Your task to perform on an android device: delete browsing data in the chrome app Image 0: 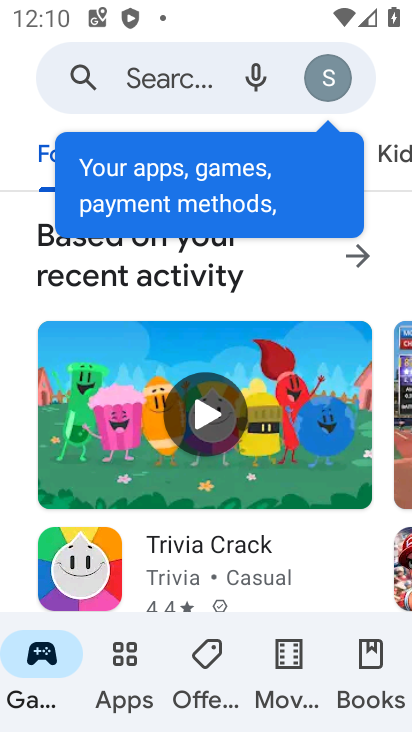
Step 0: press back button
Your task to perform on an android device: delete browsing data in the chrome app Image 1: 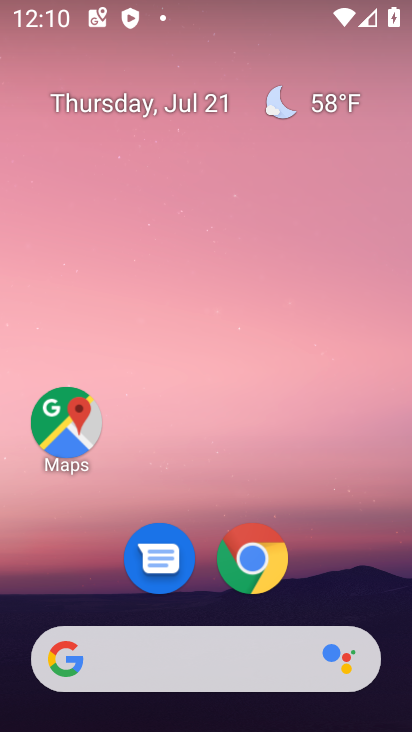
Step 1: click (256, 578)
Your task to perform on an android device: delete browsing data in the chrome app Image 2: 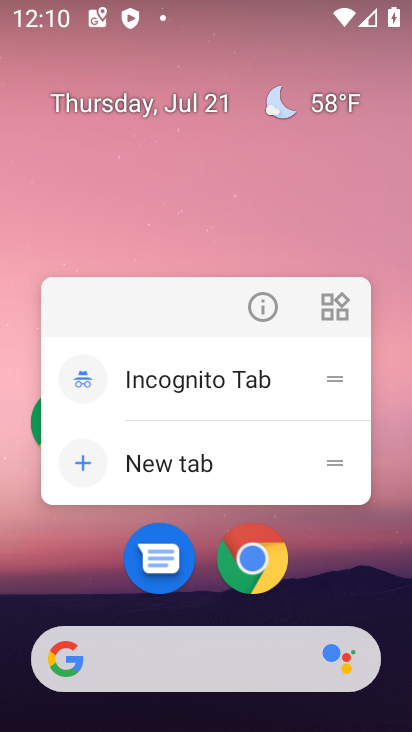
Step 2: click (247, 559)
Your task to perform on an android device: delete browsing data in the chrome app Image 3: 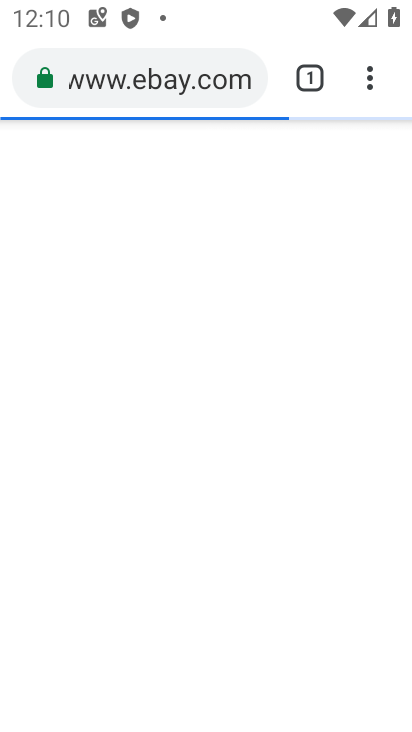
Step 3: drag from (371, 75) to (120, 439)
Your task to perform on an android device: delete browsing data in the chrome app Image 4: 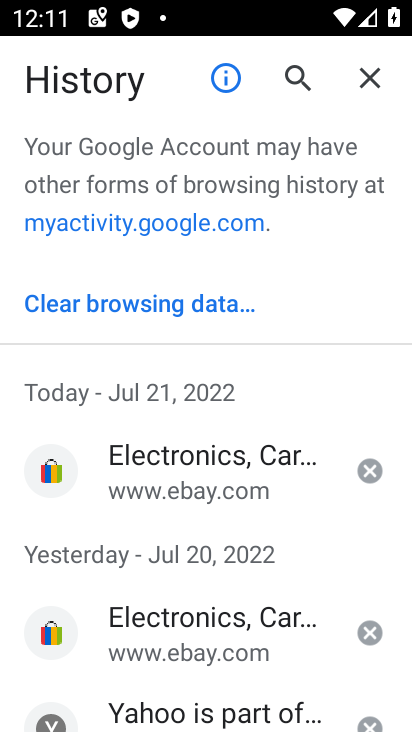
Step 4: click (89, 304)
Your task to perform on an android device: delete browsing data in the chrome app Image 5: 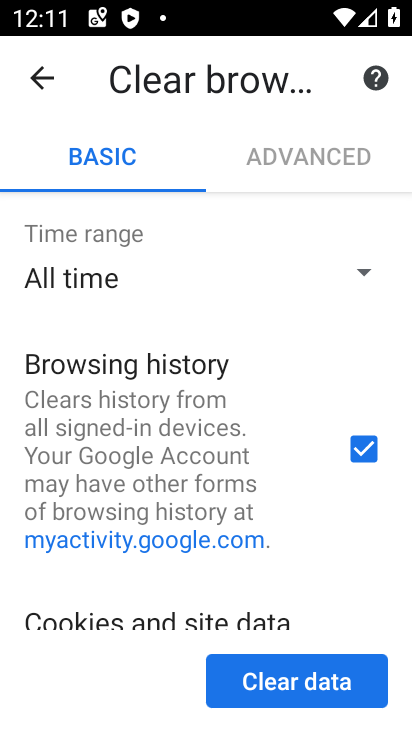
Step 5: drag from (177, 599) to (266, 258)
Your task to perform on an android device: delete browsing data in the chrome app Image 6: 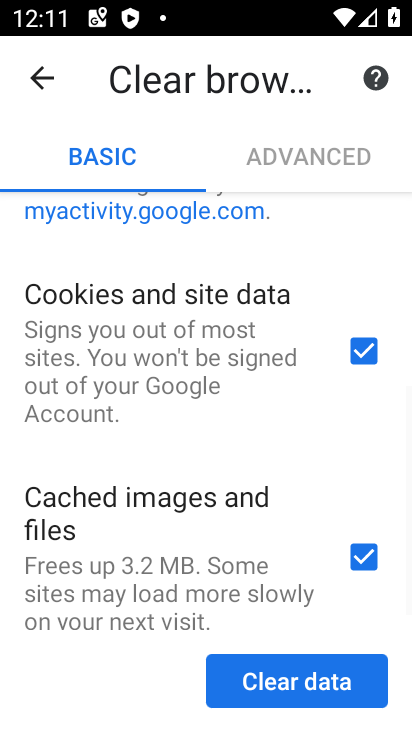
Step 6: click (290, 686)
Your task to perform on an android device: delete browsing data in the chrome app Image 7: 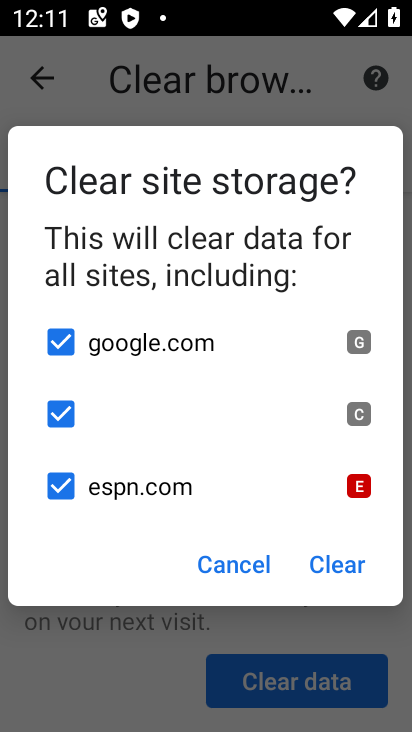
Step 7: click (319, 564)
Your task to perform on an android device: delete browsing data in the chrome app Image 8: 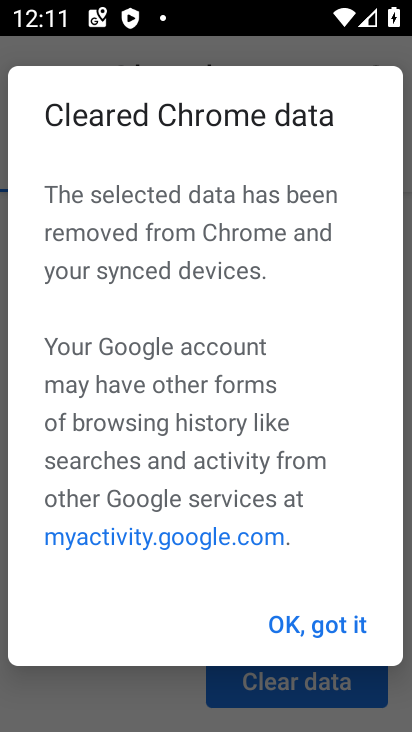
Step 8: click (312, 626)
Your task to perform on an android device: delete browsing data in the chrome app Image 9: 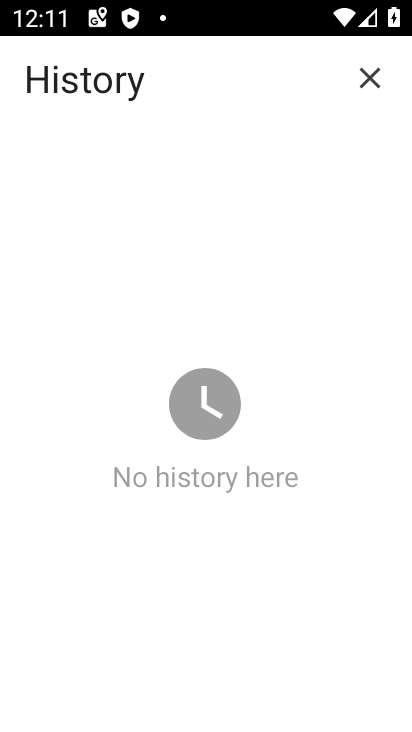
Step 9: task complete